Your task to perform on an android device: manage bookmarks in the chrome app Image 0: 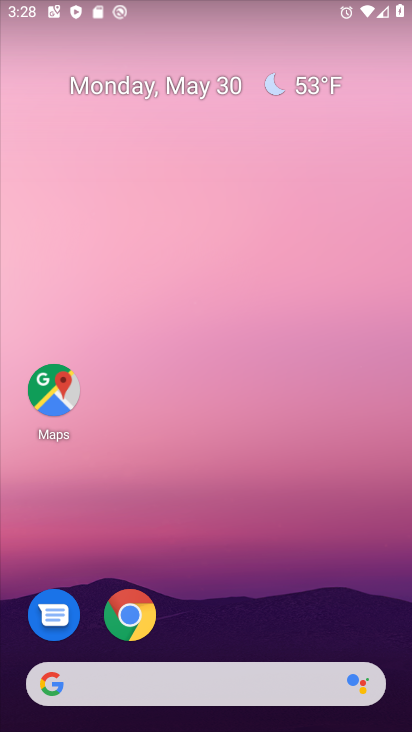
Step 0: click (144, 621)
Your task to perform on an android device: manage bookmarks in the chrome app Image 1: 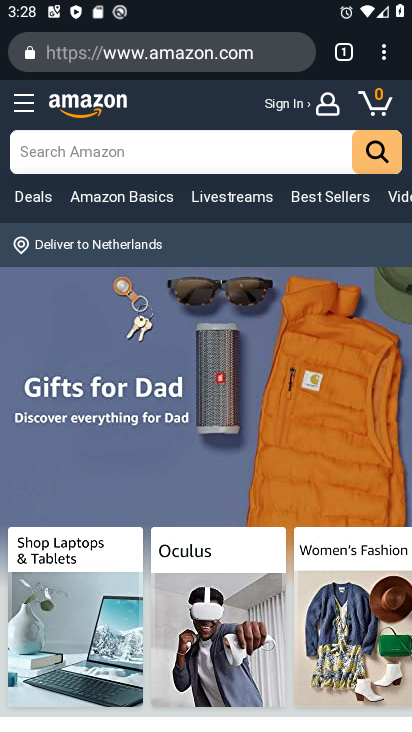
Step 1: click (384, 59)
Your task to perform on an android device: manage bookmarks in the chrome app Image 2: 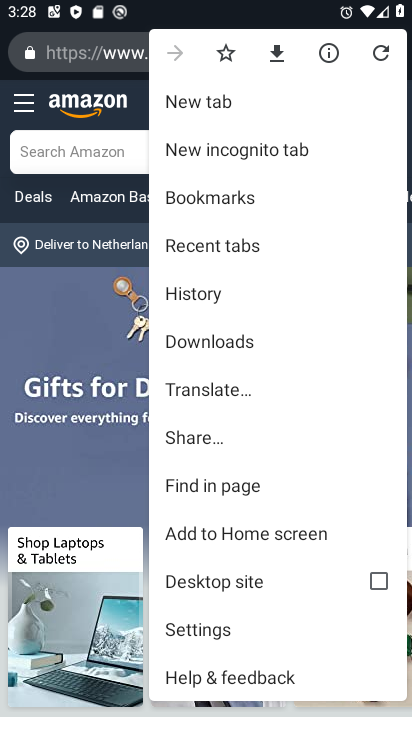
Step 2: click (206, 185)
Your task to perform on an android device: manage bookmarks in the chrome app Image 3: 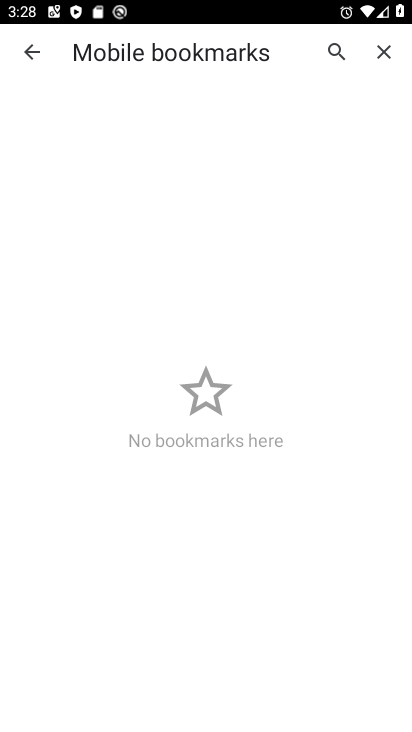
Step 3: task complete